Your task to perform on an android device: Show me popular videos on Youtube Image 0: 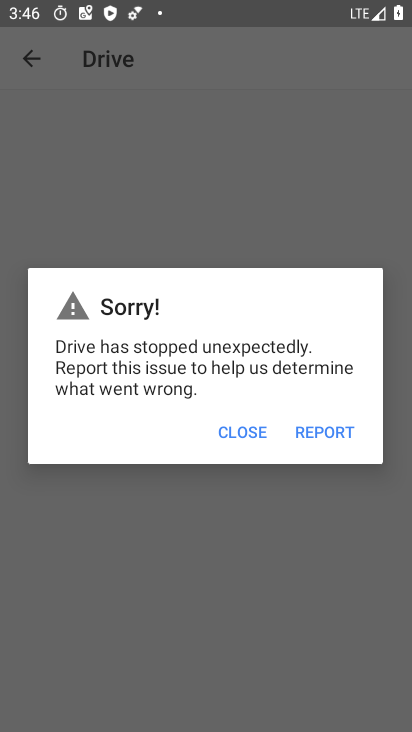
Step 0: press home button
Your task to perform on an android device: Show me popular videos on Youtube Image 1: 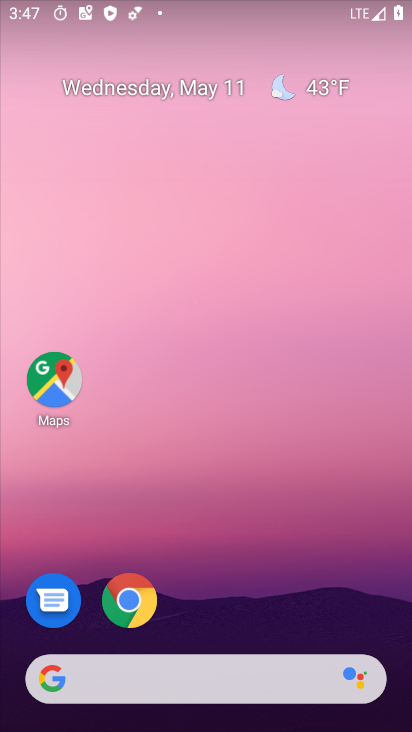
Step 1: drag from (339, 629) to (349, 20)
Your task to perform on an android device: Show me popular videos on Youtube Image 2: 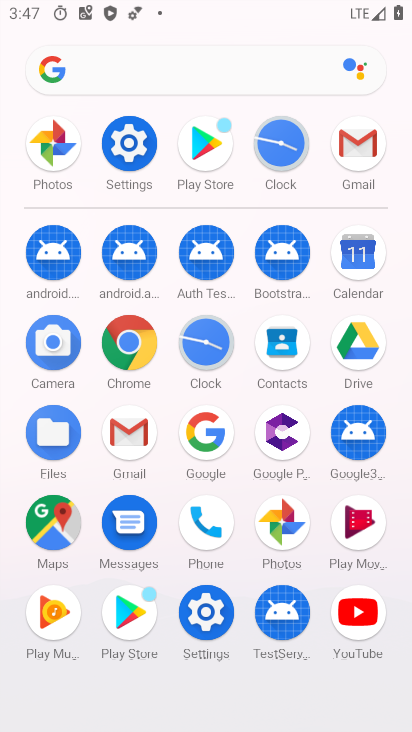
Step 2: click (361, 619)
Your task to perform on an android device: Show me popular videos on Youtube Image 3: 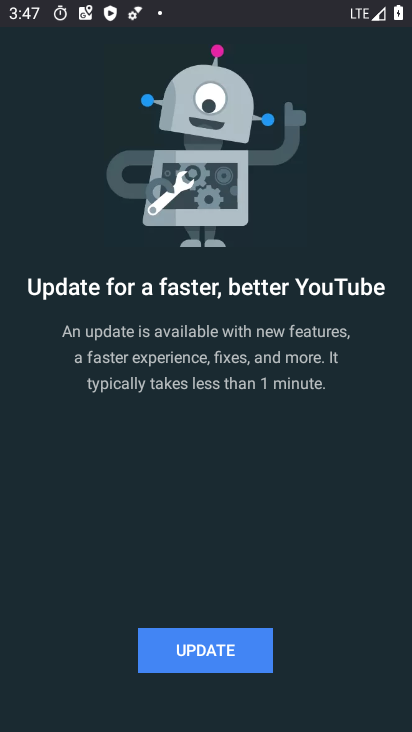
Step 3: click (225, 653)
Your task to perform on an android device: Show me popular videos on Youtube Image 4: 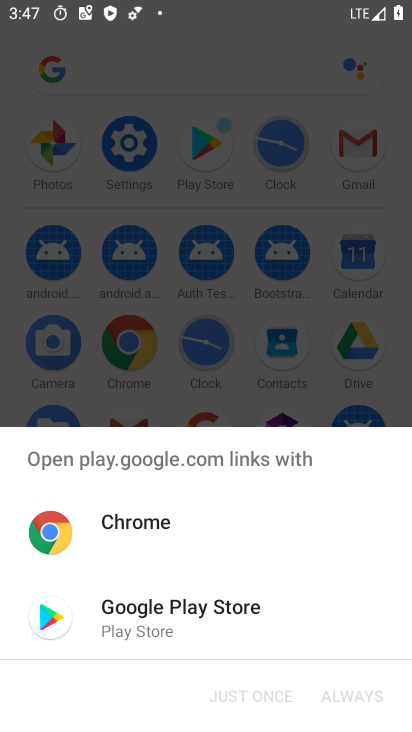
Step 4: click (141, 609)
Your task to perform on an android device: Show me popular videos on Youtube Image 5: 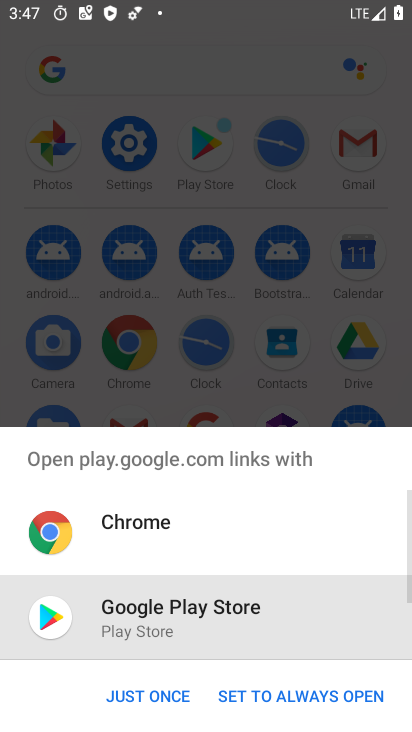
Step 5: click (130, 708)
Your task to perform on an android device: Show me popular videos on Youtube Image 6: 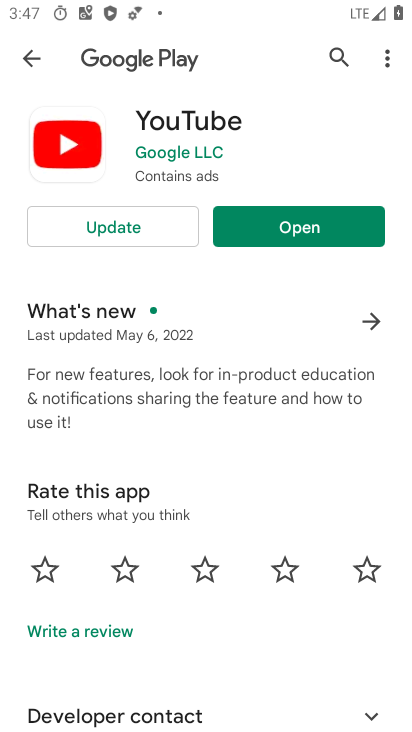
Step 6: click (135, 226)
Your task to perform on an android device: Show me popular videos on Youtube Image 7: 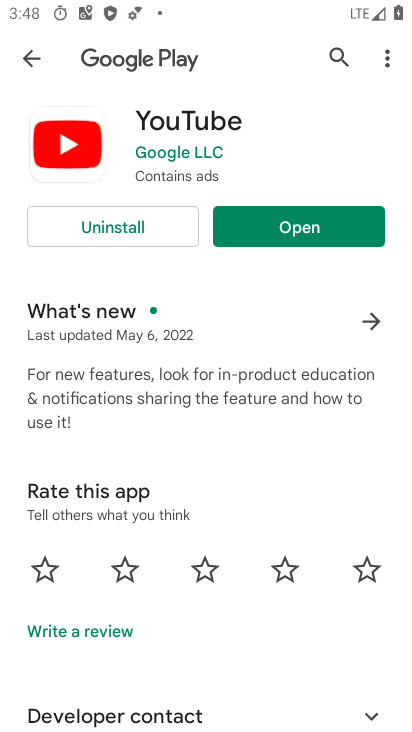
Step 7: click (273, 236)
Your task to perform on an android device: Show me popular videos on Youtube Image 8: 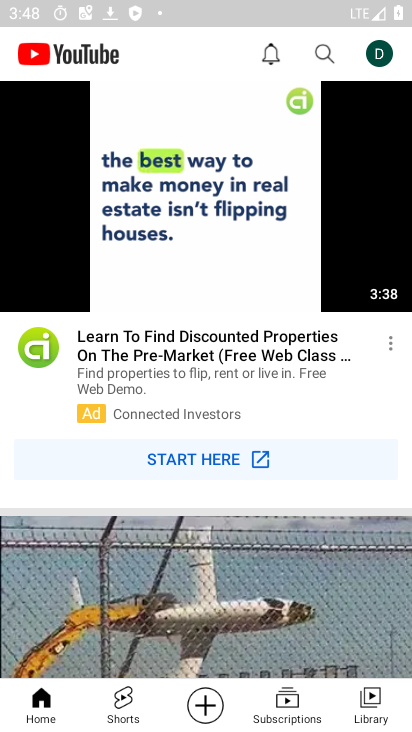
Step 8: click (33, 707)
Your task to perform on an android device: Show me popular videos on Youtube Image 9: 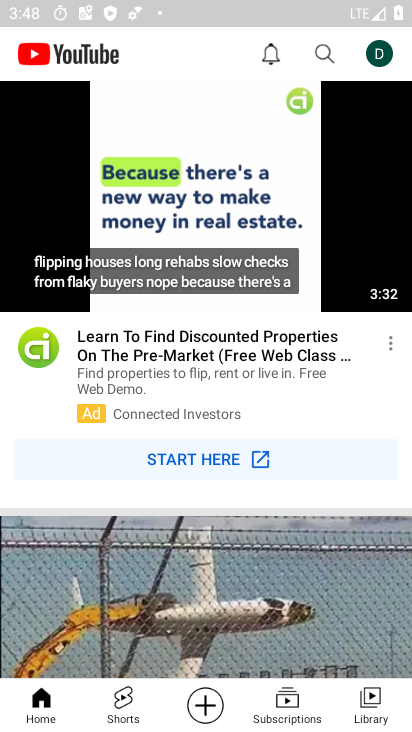
Step 9: task complete